Your task to perform on an android device: toggle data saver in the chrome app Image 0: 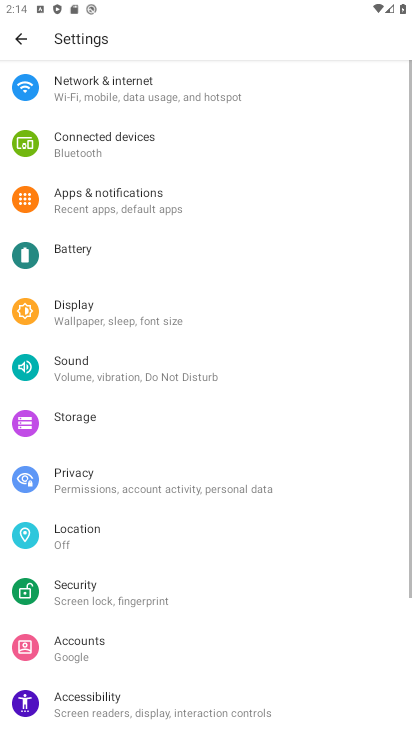
Step 0: drag from (182, 630) to (272, 51)
Your task to perform on an android device: toggle data saver in the chrome app Image 1: 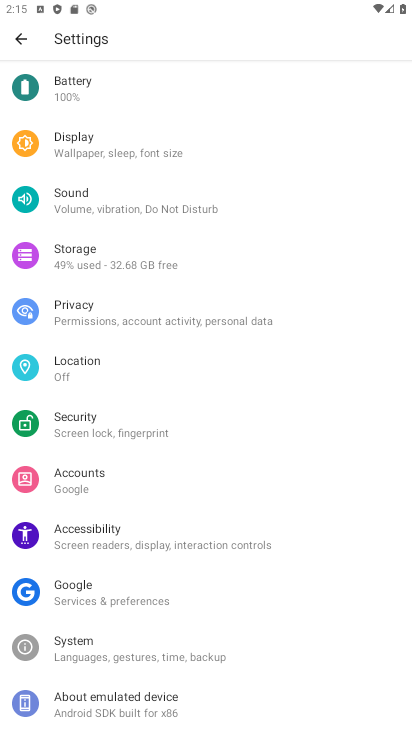
Step 1: press home button
Your task to perform on an android device: toggle data saver in the chrome app Image 2: 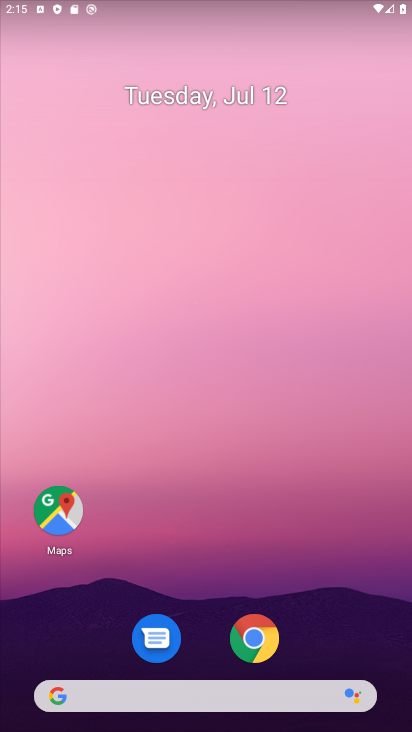
Step 2: click (253, 655)
Your task to perform on an android device: toggle data saver in the chrome app Image 3: 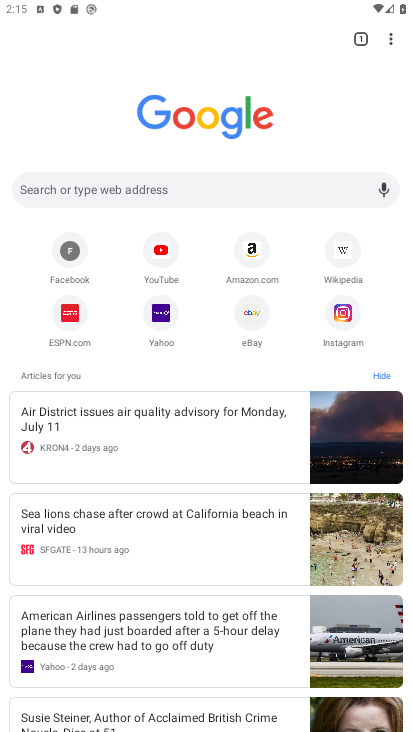
Step 3: drag from (386, 40) to (245, 326)
Your task to perform on an android device: toggle data saver in the chrome app Image 4: 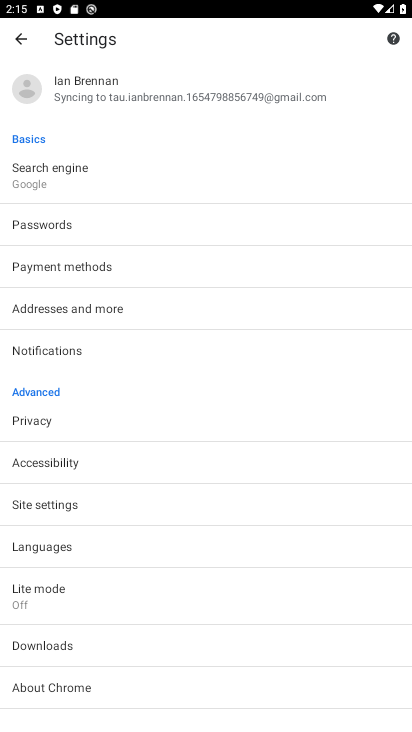
Step 4: click (52, 588)
Your task to perform on an android device: toggle data saver in the chrome app Image 5: 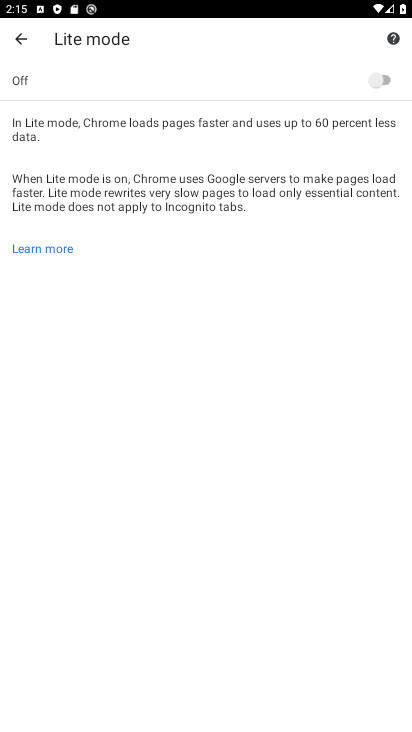
Step 5: click (384, 71)
Your task to perform on an android device: toggle data saver in the chrome app Image 6: 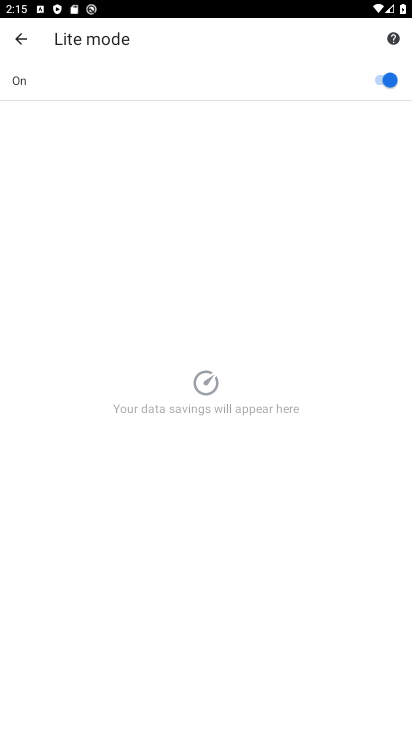
Step 6: task complete